Your task to perform on an android device: turn pop-ups on in chrome Image 0: 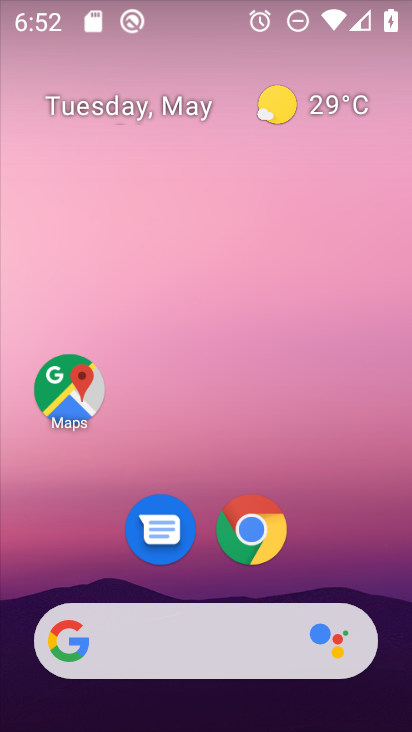
Step 0: drag from (394, 660) to (290, 189)
Your task to perform on an android device: turn pop-ups on in chrome Image 1: 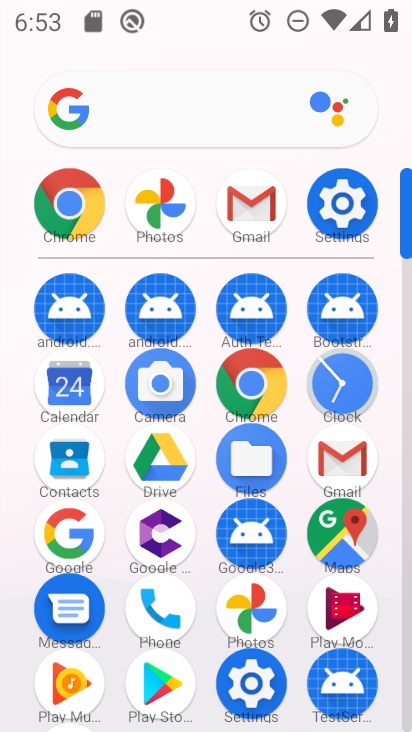
Step 1: click (253, 373)
Your task to perform on an android device: turn pop-ups on in chrome Image 2: 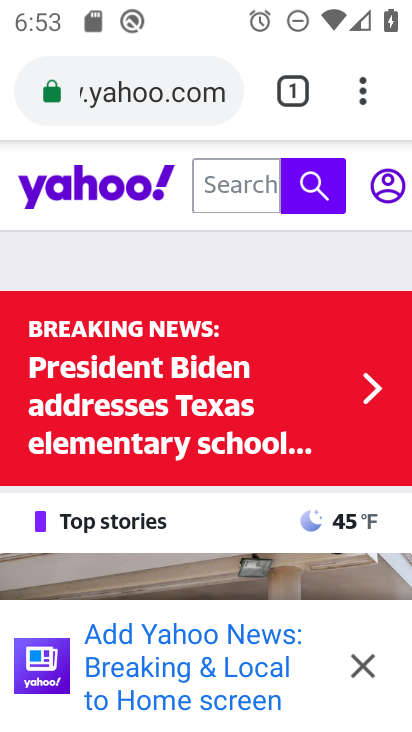
Step 2: press back button
Your task to perform on an android device: turn pop-ups on in chrome Image 3: 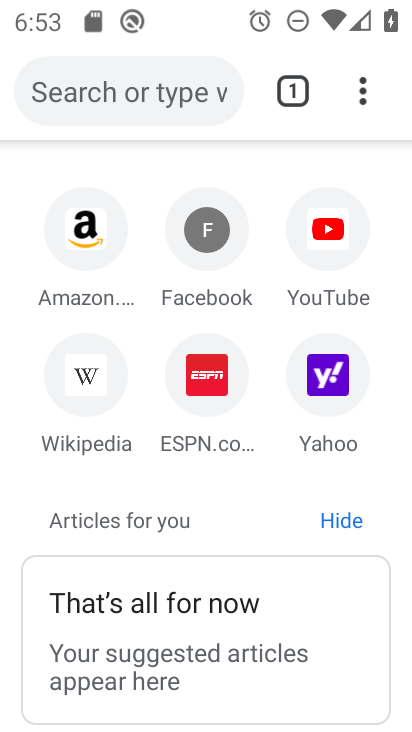
Step 3: click (369, 82)
Your task to perform on an android device: turn pop-ups on in chrome Image 4: 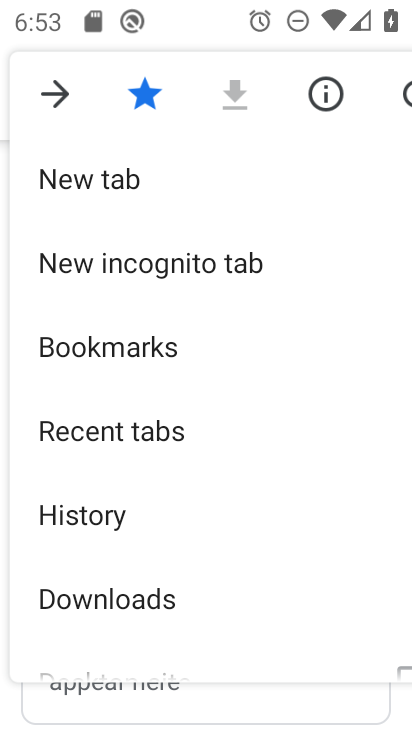
Step 4: drag from (148, 615) to (127, 207)
Your task to perform on an android device: turn pop-ups on in chrome Image 5: 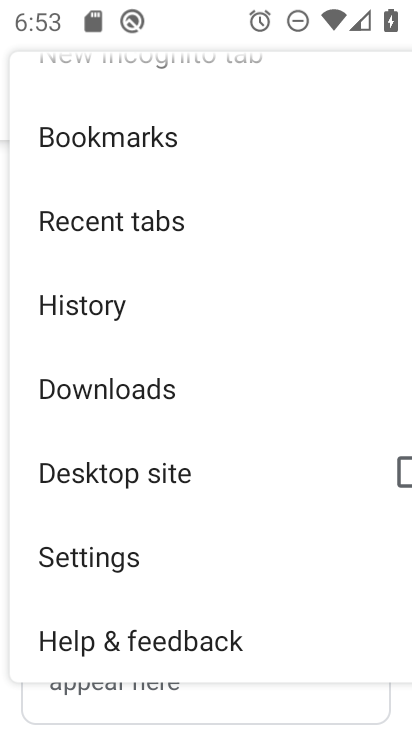
Step 5: click (133, 574)
Your task to perform on an android device: turn pop-ups on in chrome Image 6: 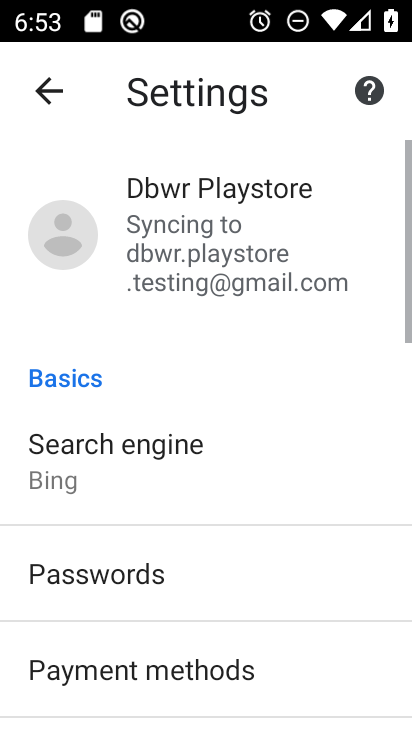
Step 6: drag from (146, 650) to (107, 211)
Your task to perform on an android device: turn pop-ups on in chrome Image 7: 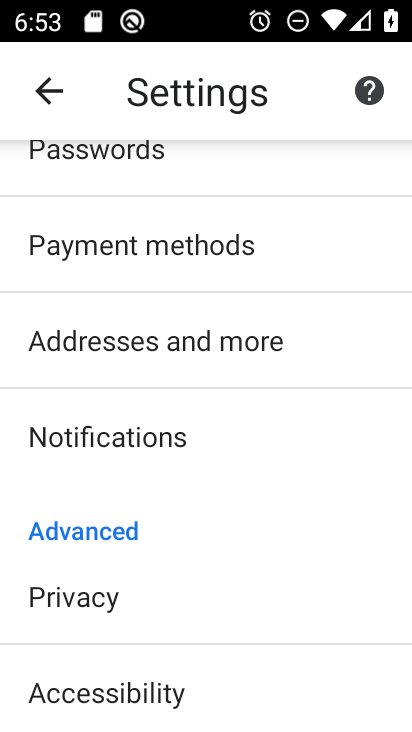
Step 7: drag from (159, 677) to (143, 337)
Your task to perform on an android device: turn pop-ups on in chrome Image 8: 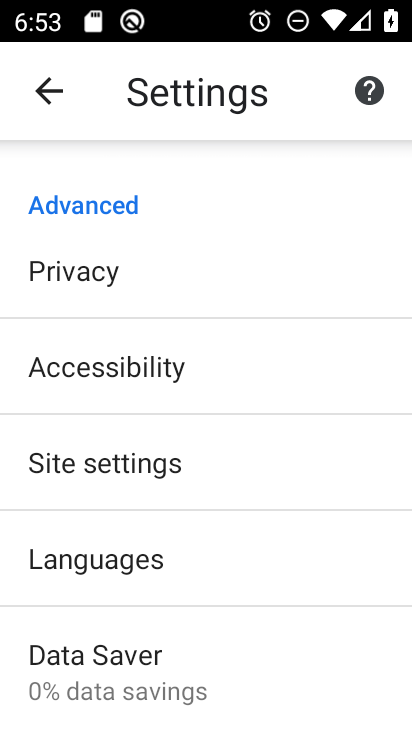
Step 8: click (166, 476)
Your task to perform on an android device: turn pop-ups on in chrome Image 9: 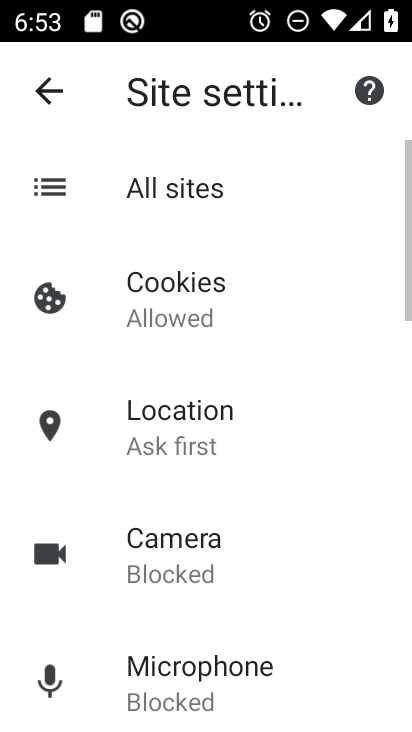
Step 9: drag from (200, 695) to (185, 326)
Your task to perform on an android device: turn pop-ups on in chrome Image 10: 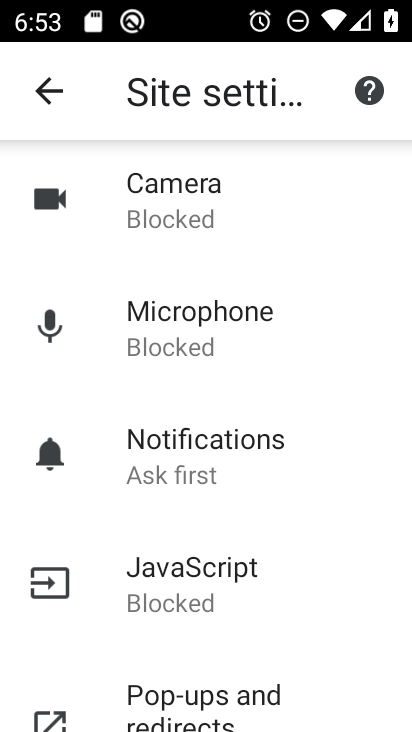
Step 10: click (248, 661)
Your task to perform on an android device: turn pop-ups on in chrome Image 11: 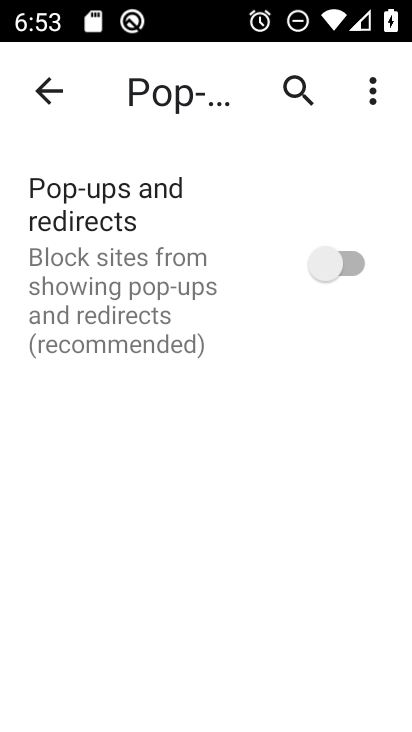
Step 11: click (315, 262)
Your task to perform on an android device: turn pop-ups on in chrome Image 12: 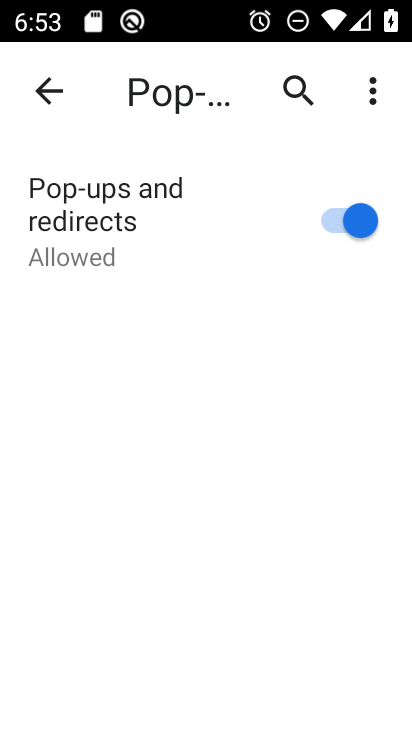
Step 12: task complete